Your task to perform on an android device: Open battery settings Image 0: 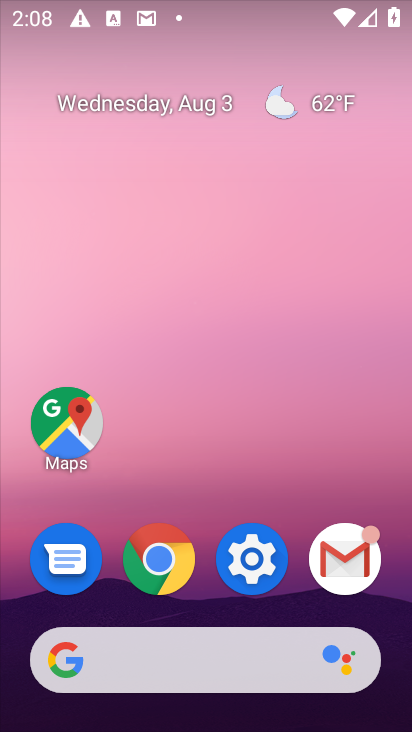
Step 0: press home button
Your task to perform on an android device: Open battery settings Image 1: 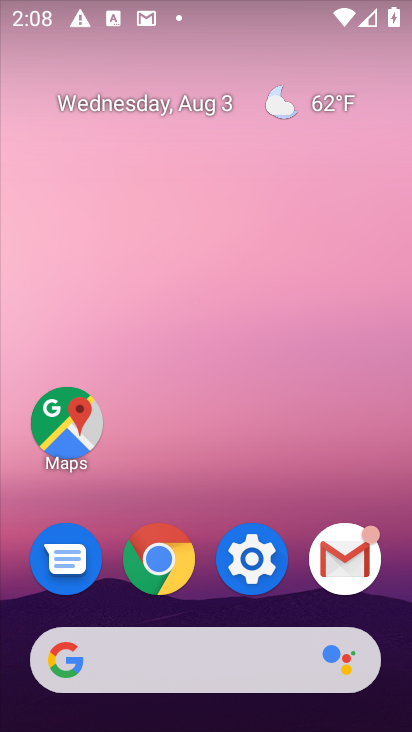
Step 1: drag from (217, 699) to (233, 134)
Your task to perform on an android device: Open battery settings Image 2: 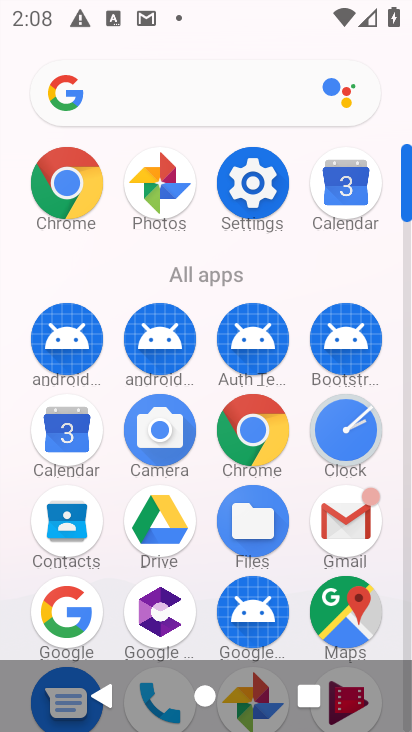
Step 2: click (250, 179)
Your task to perform on an android device: Open battery settings Image 3: 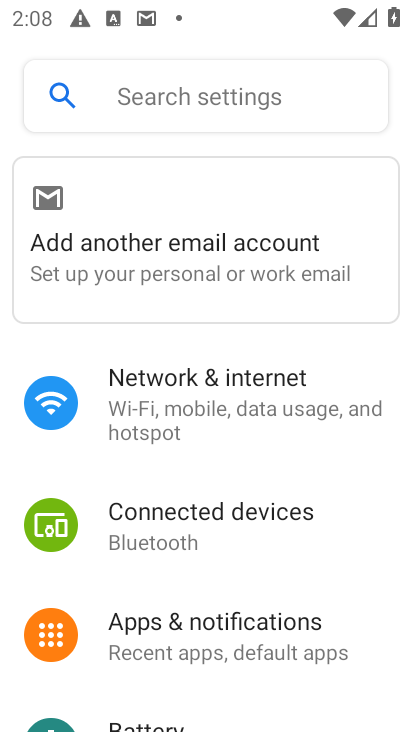
Step 3: click (153, 720)
Your task to perform on an android device: Open battery settings Image 4: 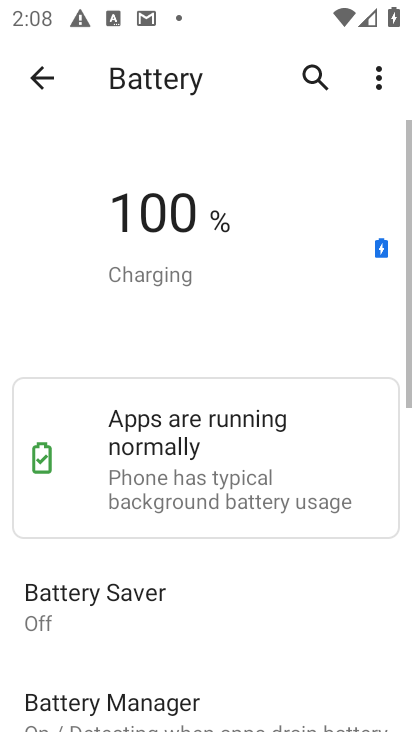
Step 4: task complete